Your task to perform on an android device: change notifications settings Image 0: 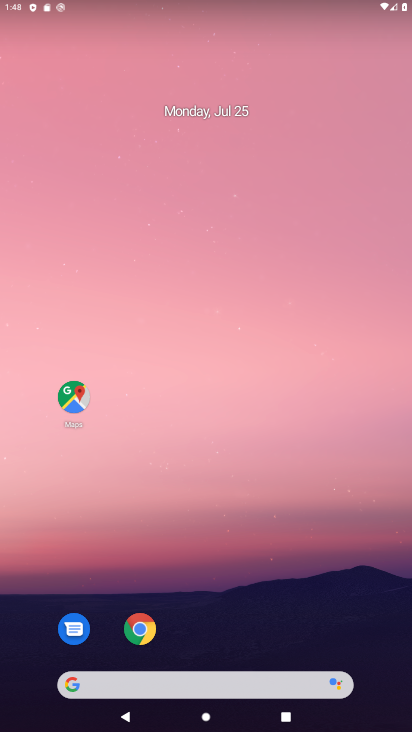
Step 0: drag from (217, 661) to (175, 12)
Your task to perform on an android device: change notifications settings Image 1: 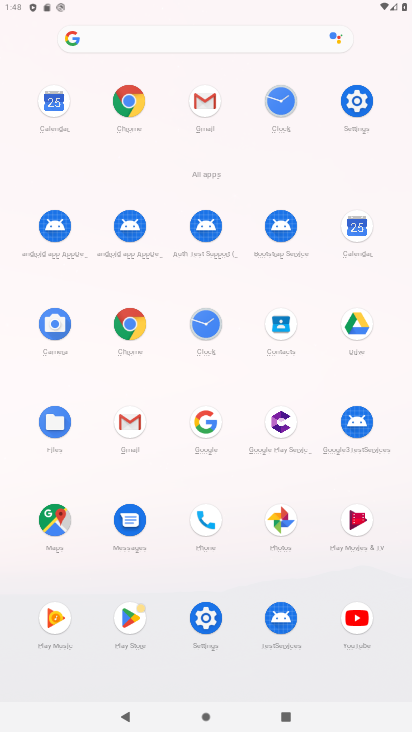
Step 1: click (349, 110)
Your task to perform on an android device: change notifications settings Image 2: 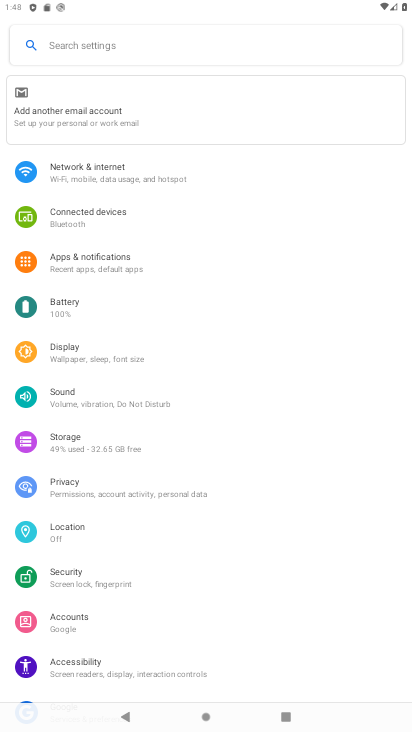
Step 2: click (112, 253)
Your task to perform on an android device: change notifications settings Image 3: 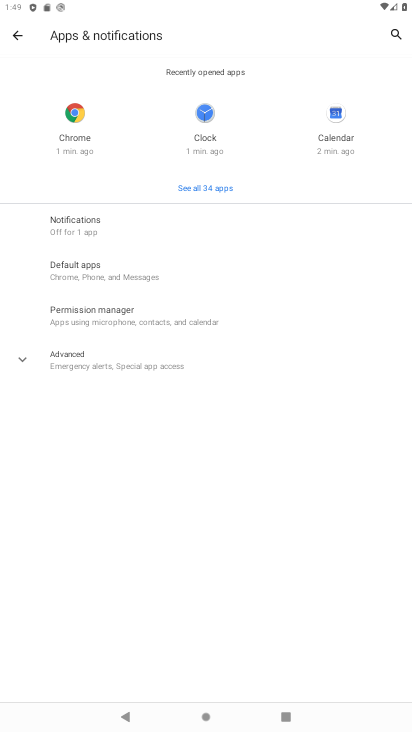
Step 3: click (66, 222)
Your task to perform on an android device: change notifications settings Image 4: 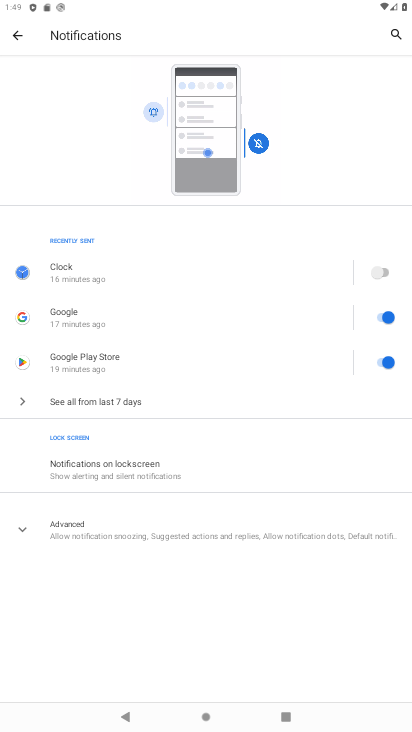
Step 4: click (88, 522)
Your task to perform on an android device: change notifications settings Image 5: 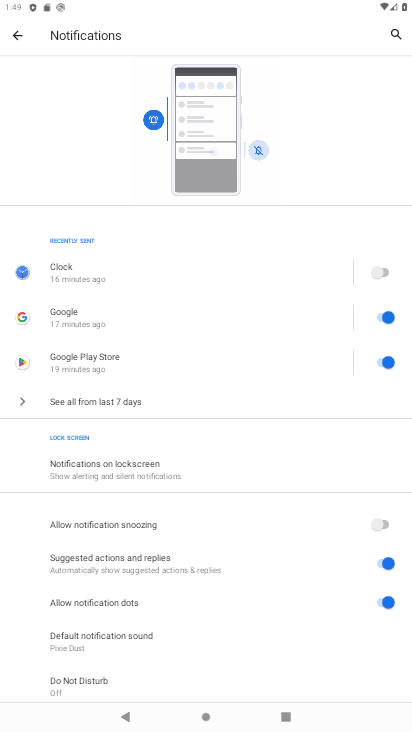
Step 5: click (68, 405)
Your task to perform on an android device: change notifications settings Image 6: 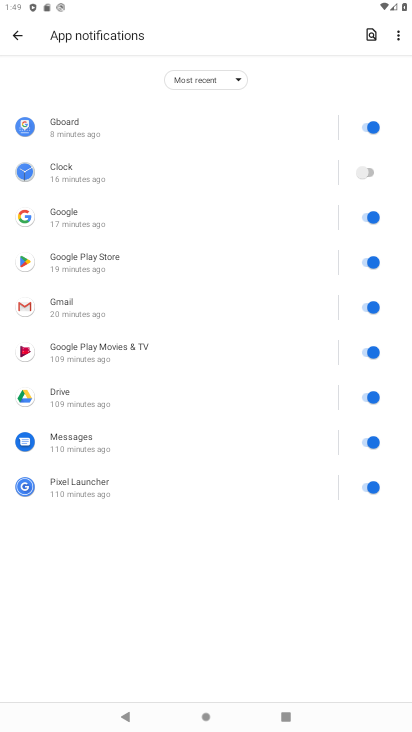
Step 6: click (373, 257)
Your task to perform on an android device: change notifications settings Image 7: 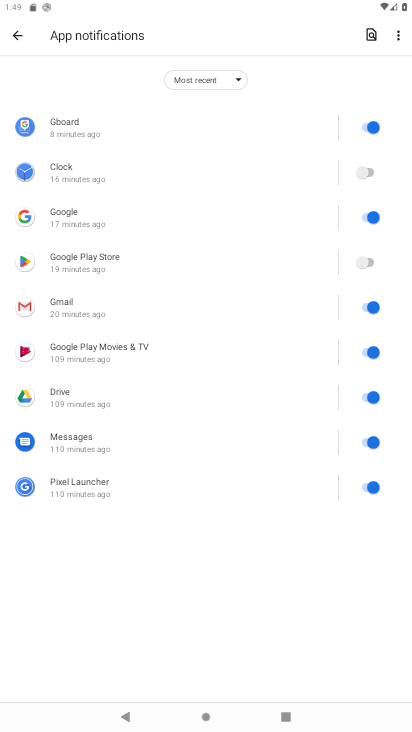
Step 7: task complete